Your task to perform on an android device: Open settings Image 0: 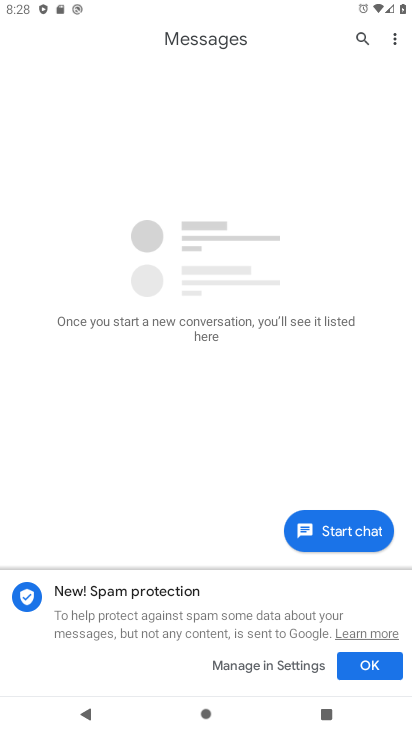
Step 0: press home button
Your task to perform on an android device: Open settings Image 1: 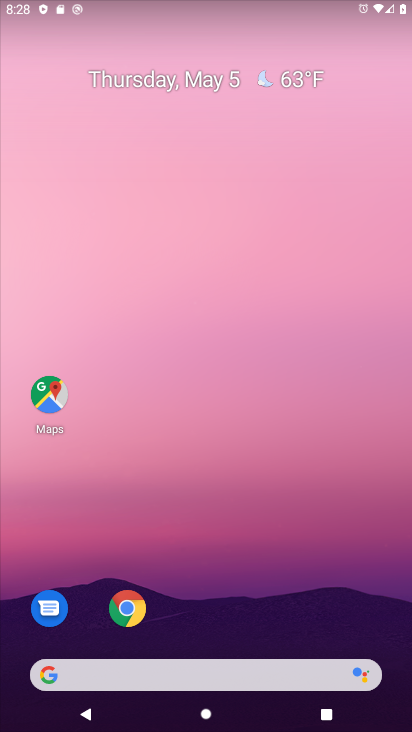
Step 1: drag from (142, 370) to (98, 105)
Your task to perform on an android device: Open settings Image 2: 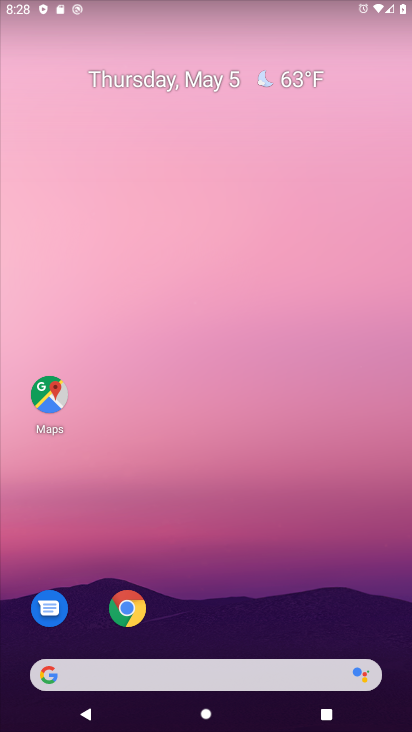
Step 2: drag from (229, 616) to (165, 51)
Your task to perform on an android device: Open settings Image 3: 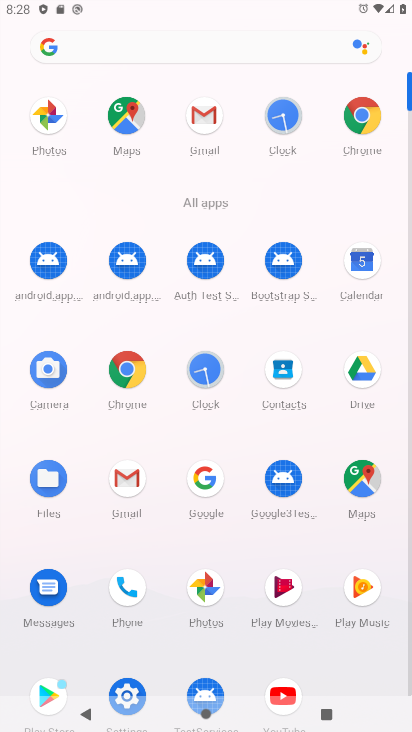
Step 3: drag from (158, 670) to (142, 338)
Your task to perform on an android device: Open settings Image 4: 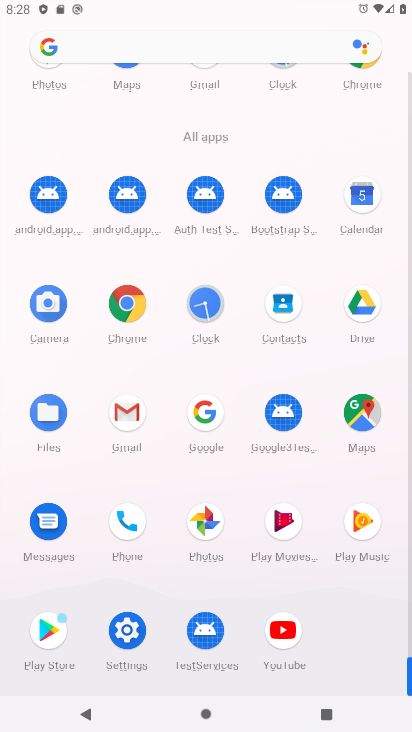
Step 4: click (125, 630)
Your task to perform on an android device: Open settings Image 5: 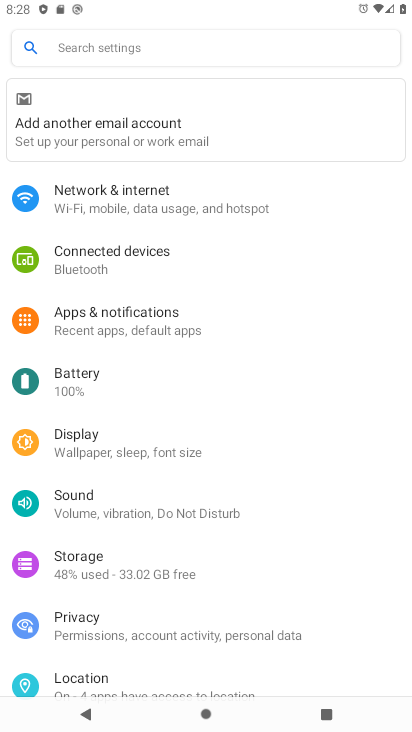
Step 5: task complete